Your task to perform on an android device: toggle priority inbox in the gmail app Image 0: 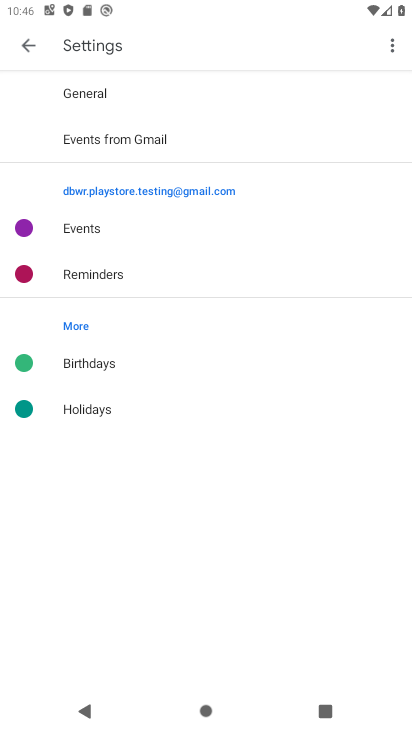
Step 0: press home button
Your task to perform on an android device: toggle priority inbox in the gmail app Image 1: 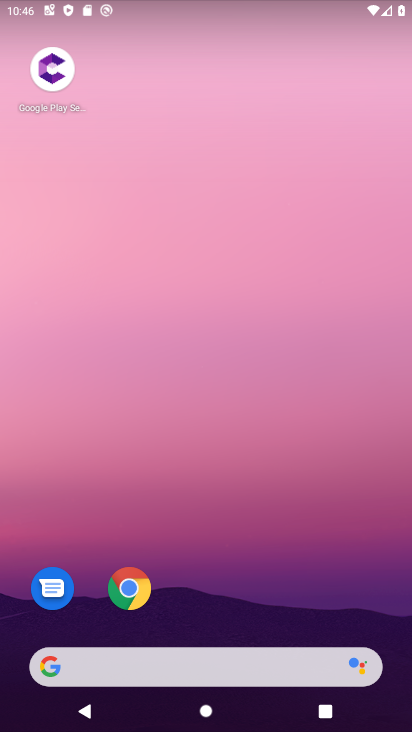
Step 1: drag from (245, 516) to (101, 1)
Your task to perform on an android device: toggle priority inbox in the gmail app Image 2: 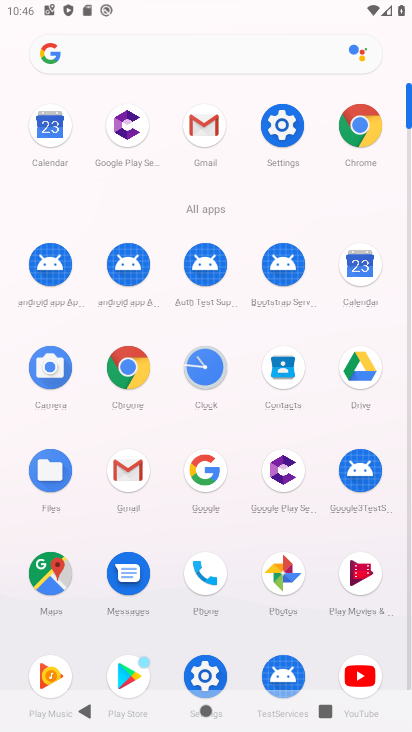
Step 2: click (214, 112)
Your task to perform on an android device: toggle priority inbox in the gmail app Image 3: 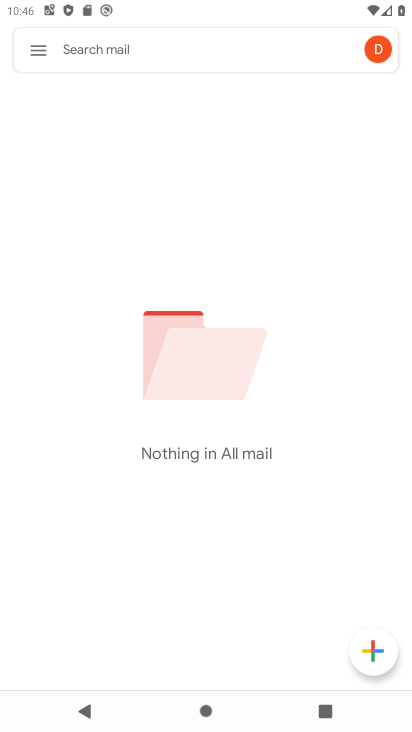
Step 3: click (31, 50)
Your task to perform on an android device: toggle priority inbox in the gmail app Image 4: 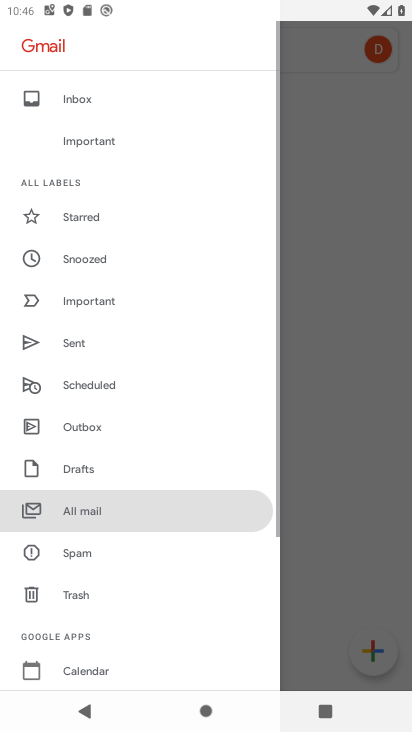
Step 4: drag from (82, 602) to (109, 151)
Your task to perform on an android device: toggle priority inbox in the gmail app Image 5: 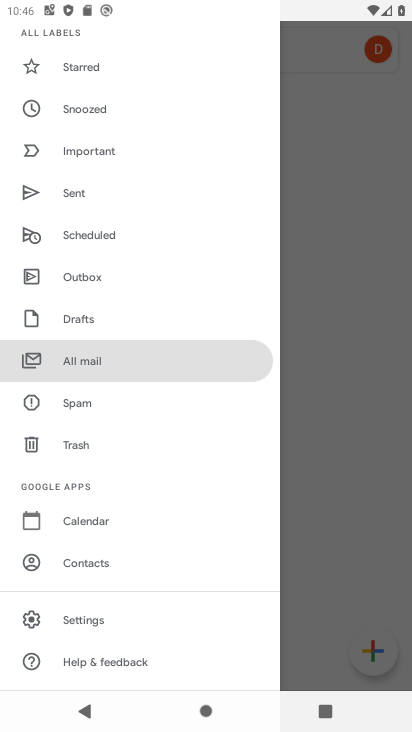
Step 5: click (94, 624)
Your task to perform on an android device: toggle priority inbox in the gmail app Image 6: 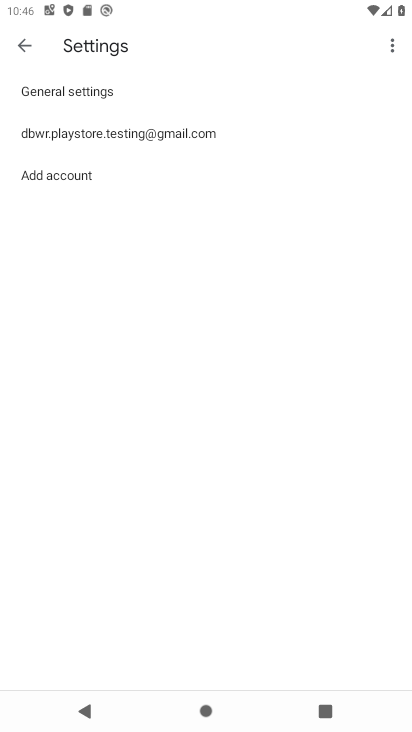
Step 6: click (142, 128)
Your task to perform on an android device: toggle priority inbox in the gmail app Image 7: 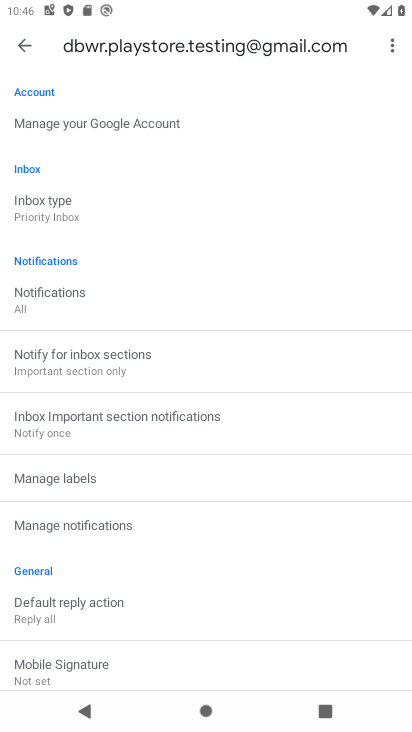
Step 7: click (73, 200)
Your task to perform on an android device: toggle priority inbox in the gmail app Image 8: 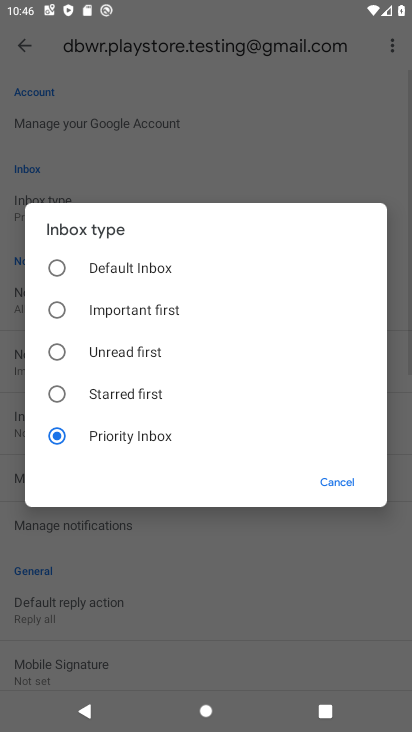
Step 8: click (140, 271)
Your task to perform on an android device: toggle priority inbox in the gmail app Image 9: 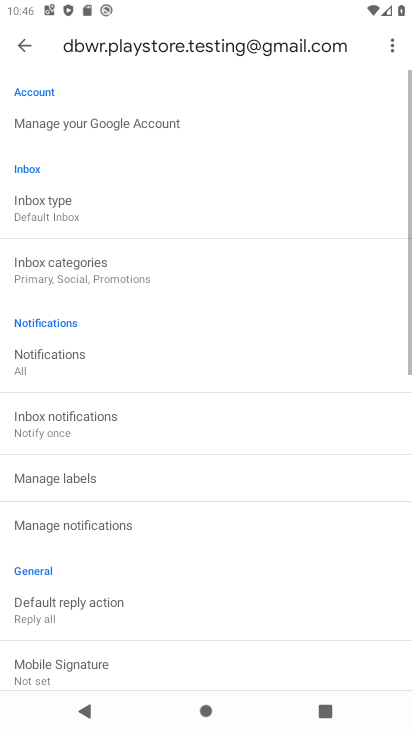
Step 9: task complete